Your task to perform on an android device: turn on the 12-hour format for clock Image 0: 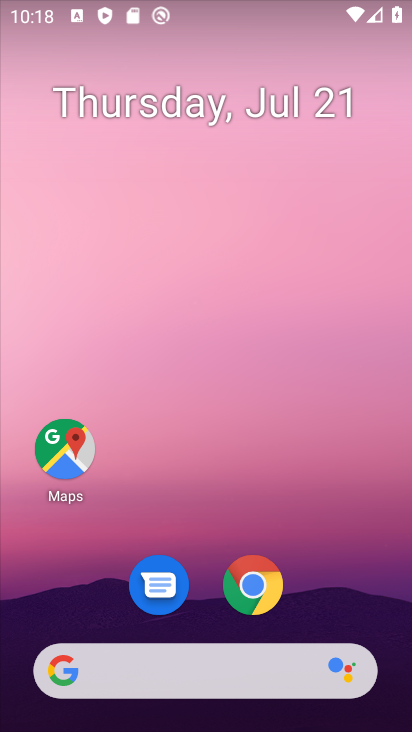
Step 0: drag from (349, 550) to (357, 91)
Your task to perform on an android device: turn on the 12-hour format for clock Image 1: 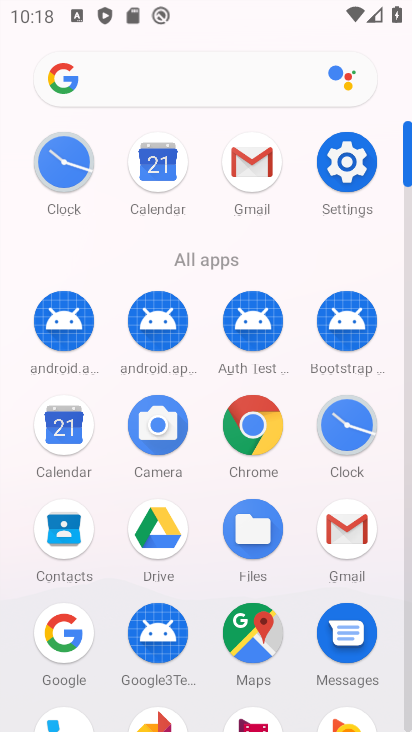
Step 1: click (81, 163)
Your task to perform on an android device: turn on the 12-hour format for clock Image 2: 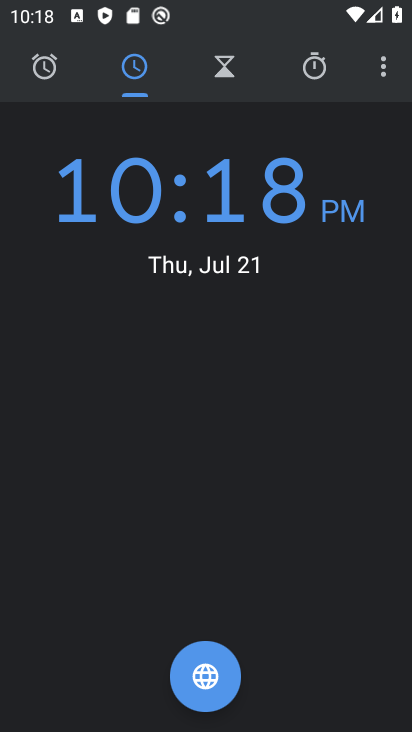
Step 2: click (384, 75)
Your task to perform on an android device: turn on the 12-hour format for clock Image 3: 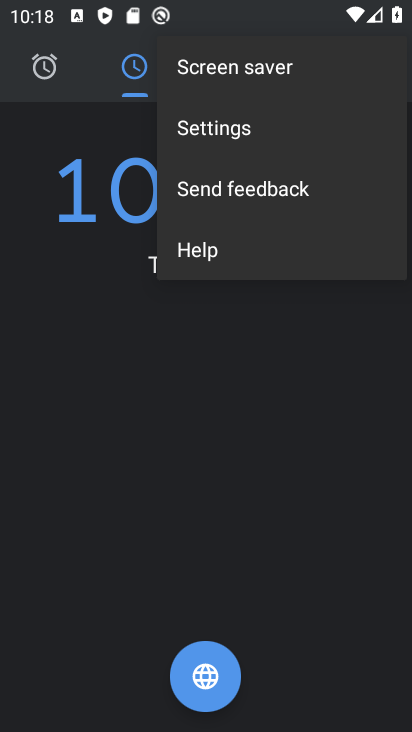
Step 3: click (252, 133)
Your task to perform on an android device: turn on the 12-hour format for clock Image 4: 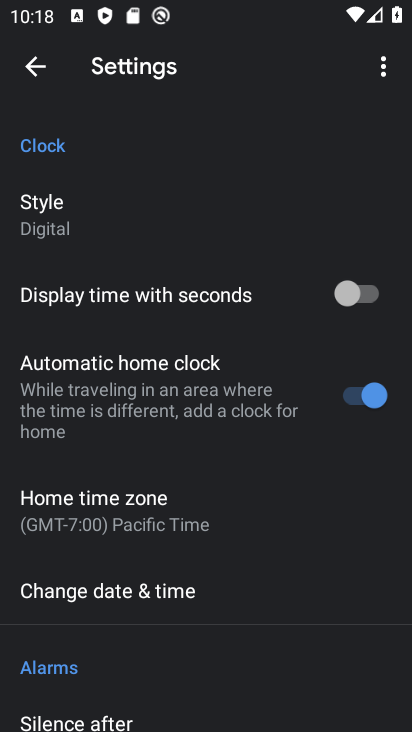
Step 4: click (225, 596)
Your task to perform on an android device: turn on the 12-hour format for clock Image 5: 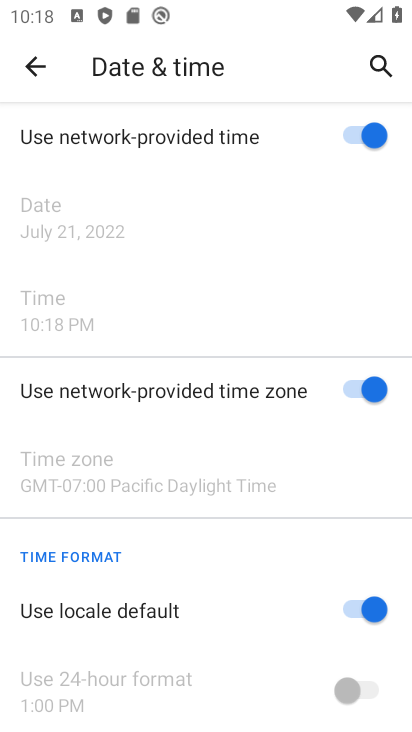
Step 5: task complete